Your task to perform on an android device: Open Google Chrome and open the bookmarks view Image 0: 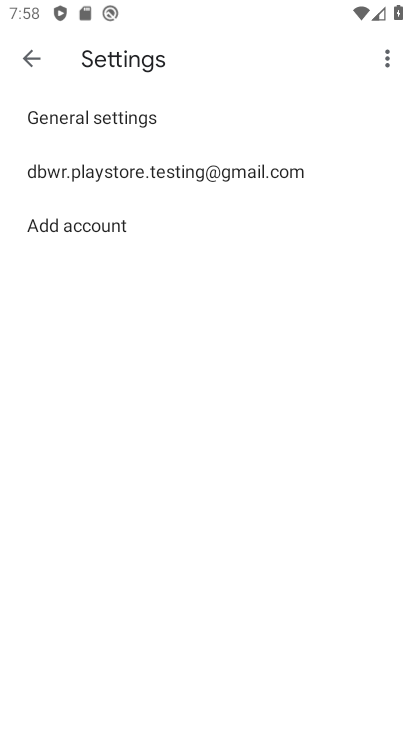
Step 0: press home button
Your task to perform on an android device: Open Google Chrome and open the bookmarks view Image 1: 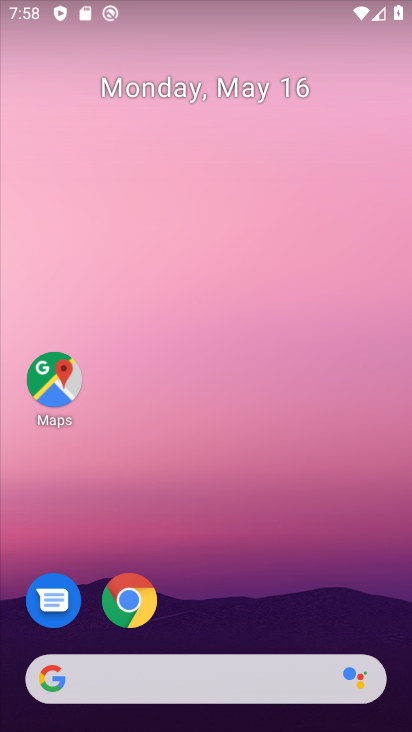
Step 1: click (131, 604)
Your task to perform on an android device: Open Google Chrome and open the bookmarks view Image 2: 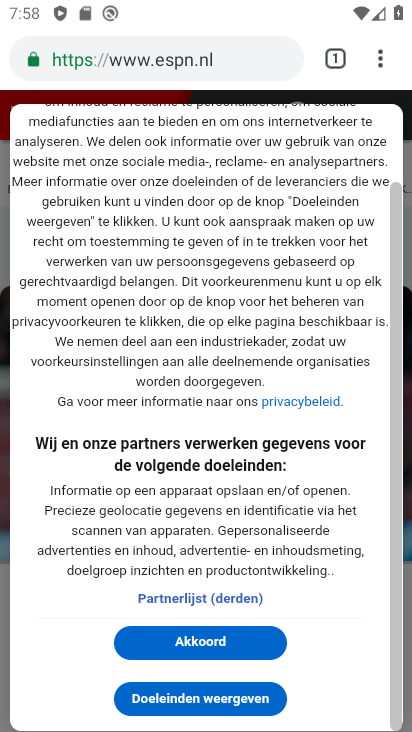
Step 2: click (375, 62)
Your task to perform on an android device: Open Google Chrome and open the bookmarks view Image 3: 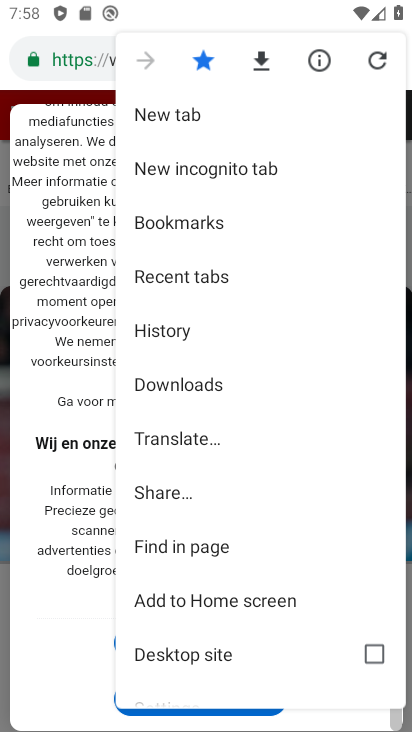
Step 3: click (167, 218)
Your task to perform on an android device: Open Google Chrome and open the bookmarks view Image 4: 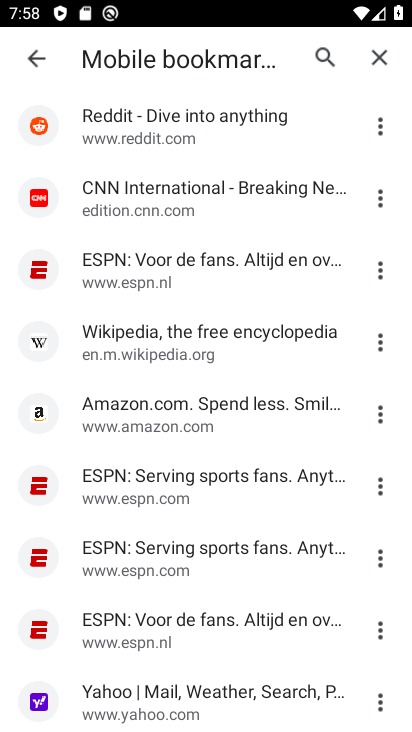
Step 4: task complete